Your task to perform on an android device: change the clock display to show seconds Image 0: 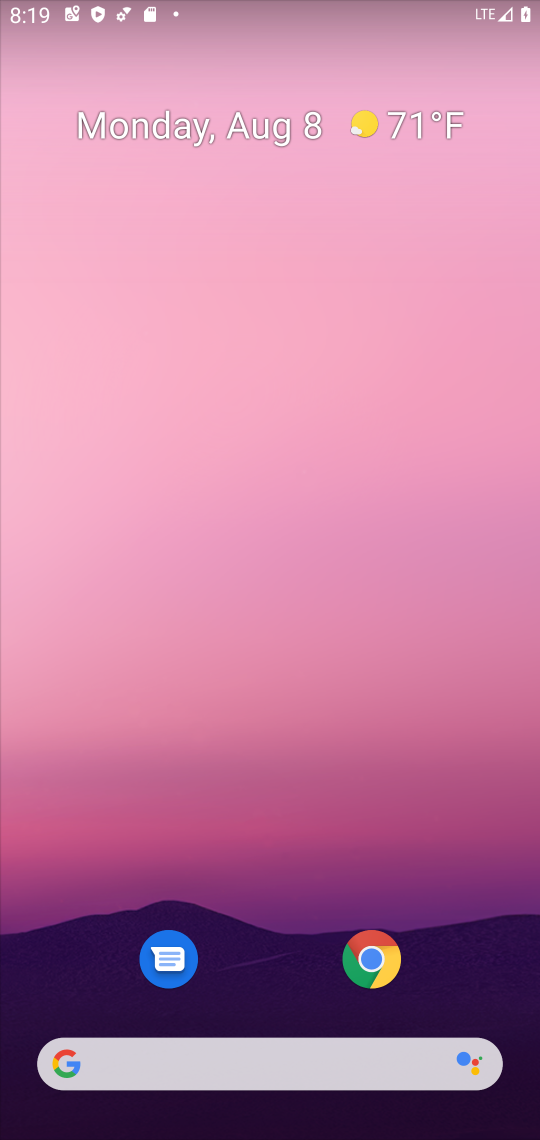
Step 0: drag from (467, 919) to (287, 0)
Your task to perform on an android device: change the clock display to show seconds Image 1: 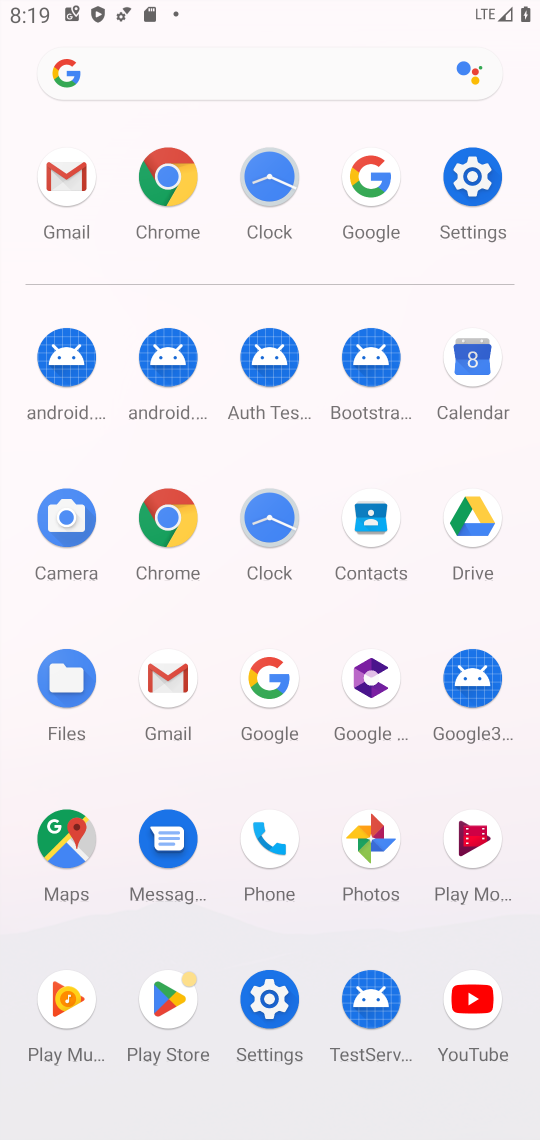
Step 1: click (271, 192)
Your task to perform on an android device: change the clock display to show seconds Image 2: 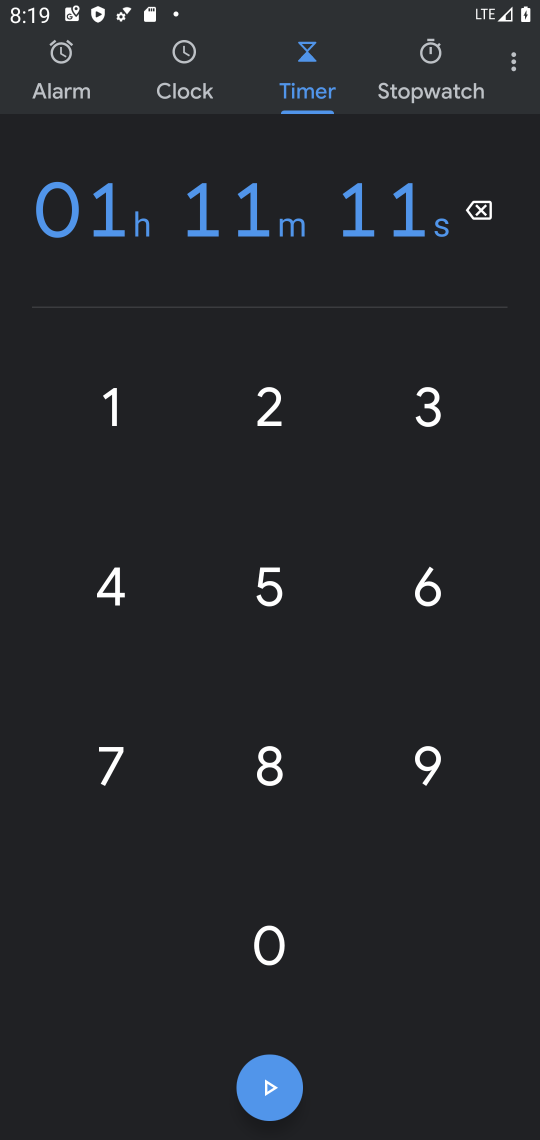
Step 2: click (170, 58)
Your task to perform on an android device: change the clock display to show seconds Image 3: 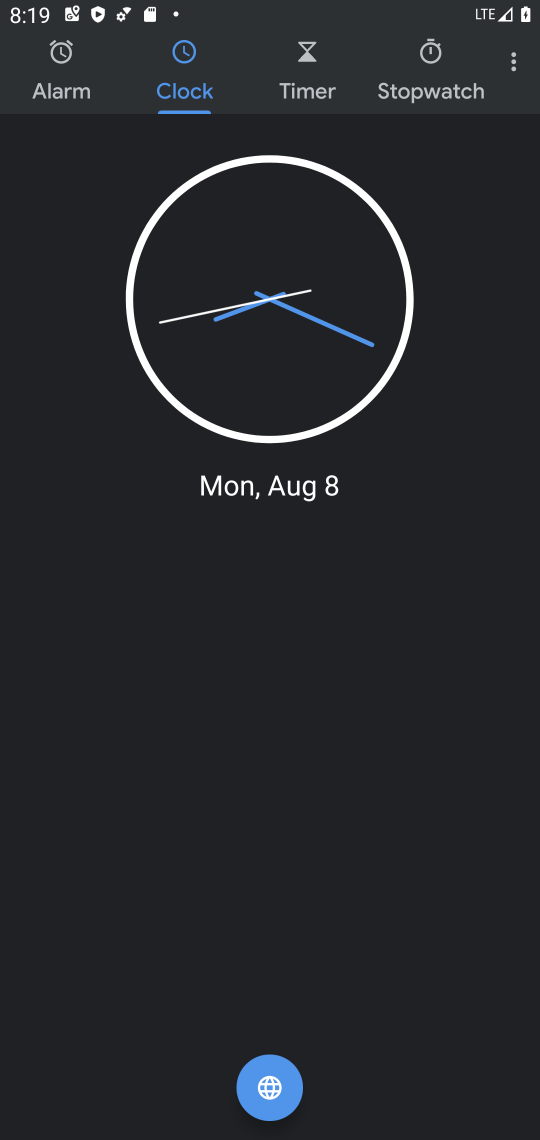
Step 3: click (524, 59)
Your task to perform on an android device: change the clock display to show seconds Image 4: 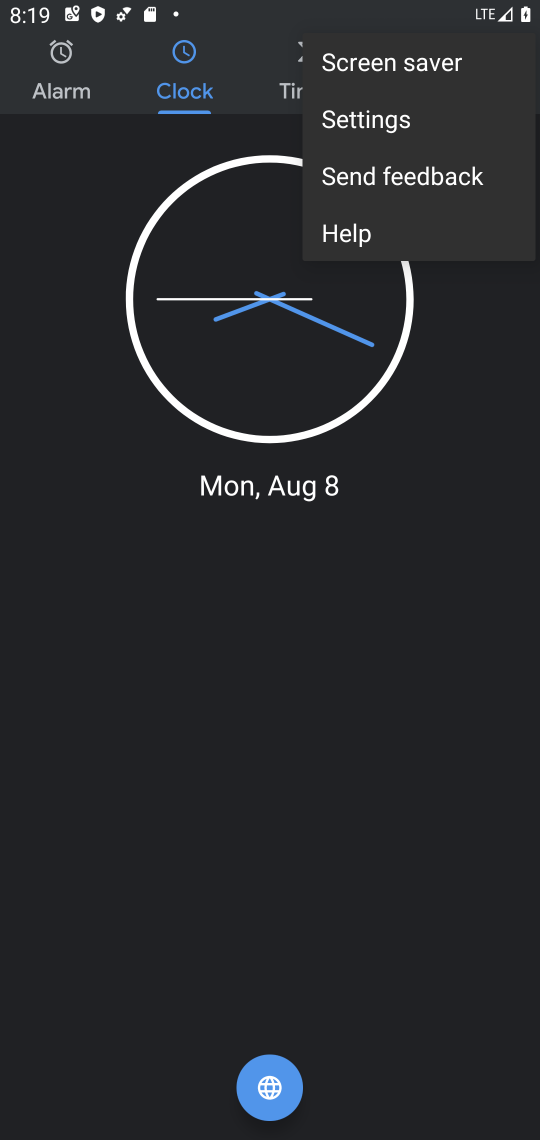
Step 4: click (442, 118)
Your task to perform on an android device: change the clock display to show seconds Image 5: 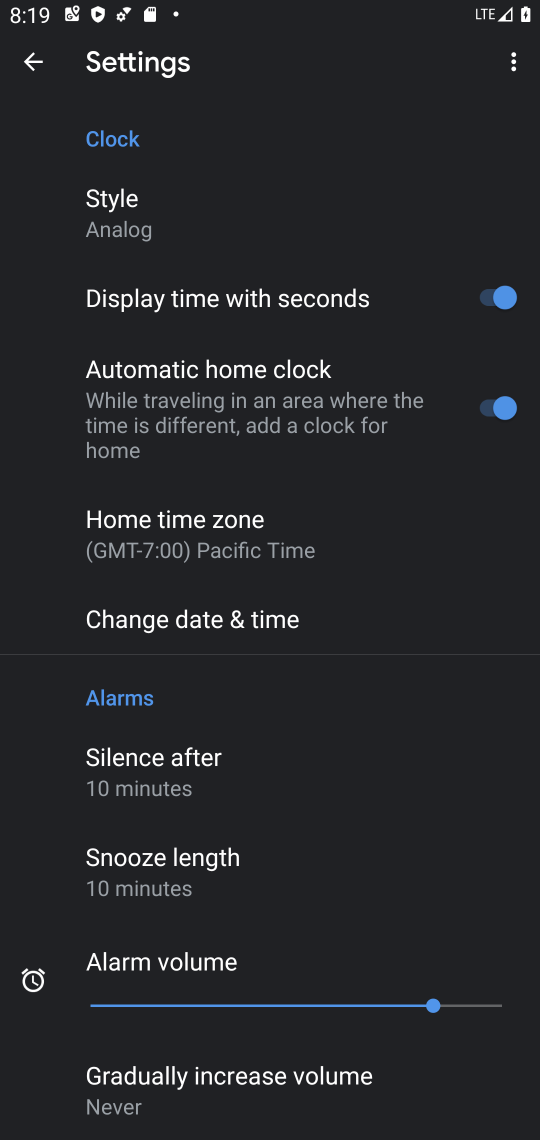
Step 5: click (417, 306)
Your task to perform on an android device: change the clock display to show seconds Image 6: 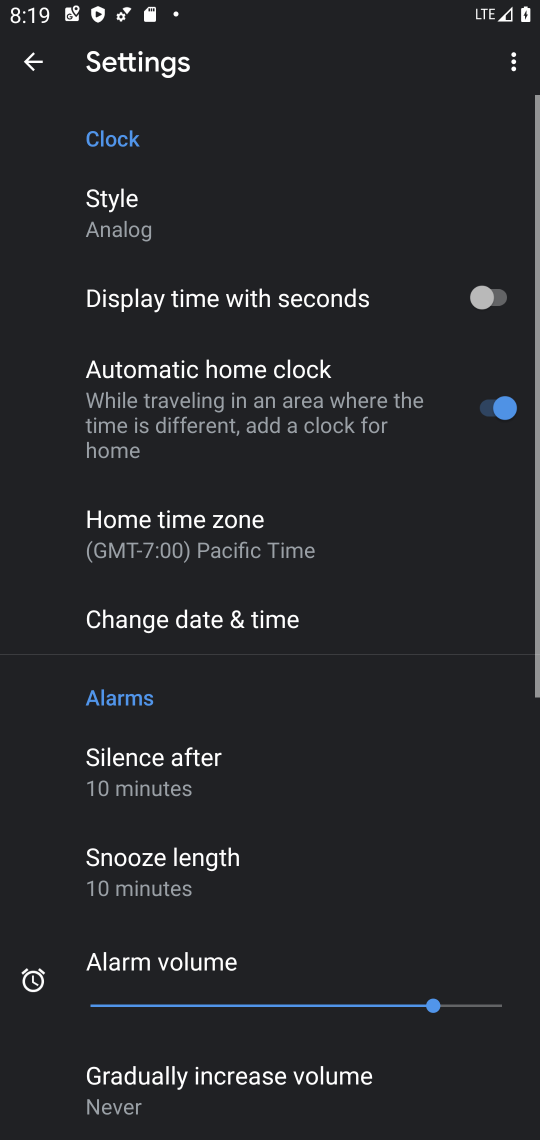
Step 6: task complete